Your task to perform on an android device: Open accessibility settings Image 0: 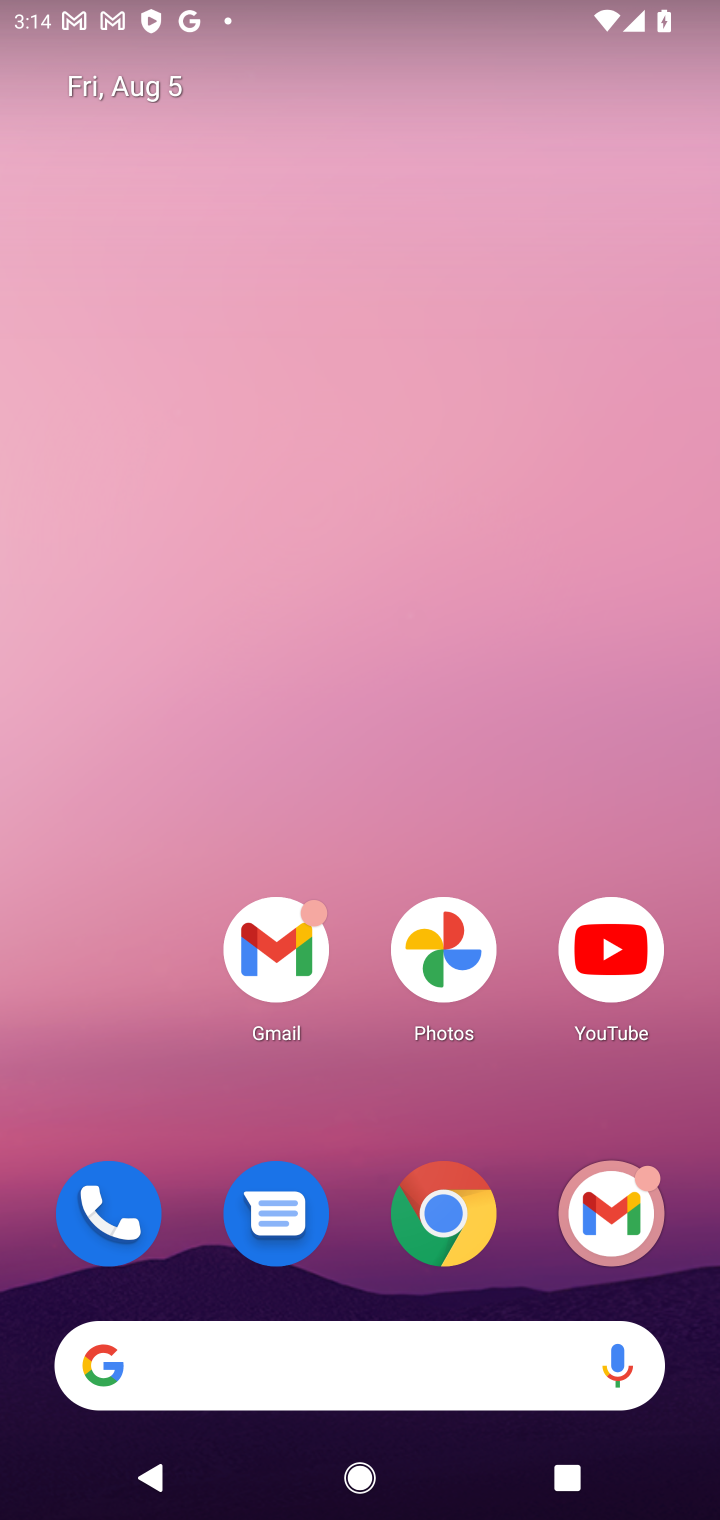
Step 0: drag from (540, 1277) to (423, 352)
Your task to perform on an android device: Open accessibility settings Image 1: 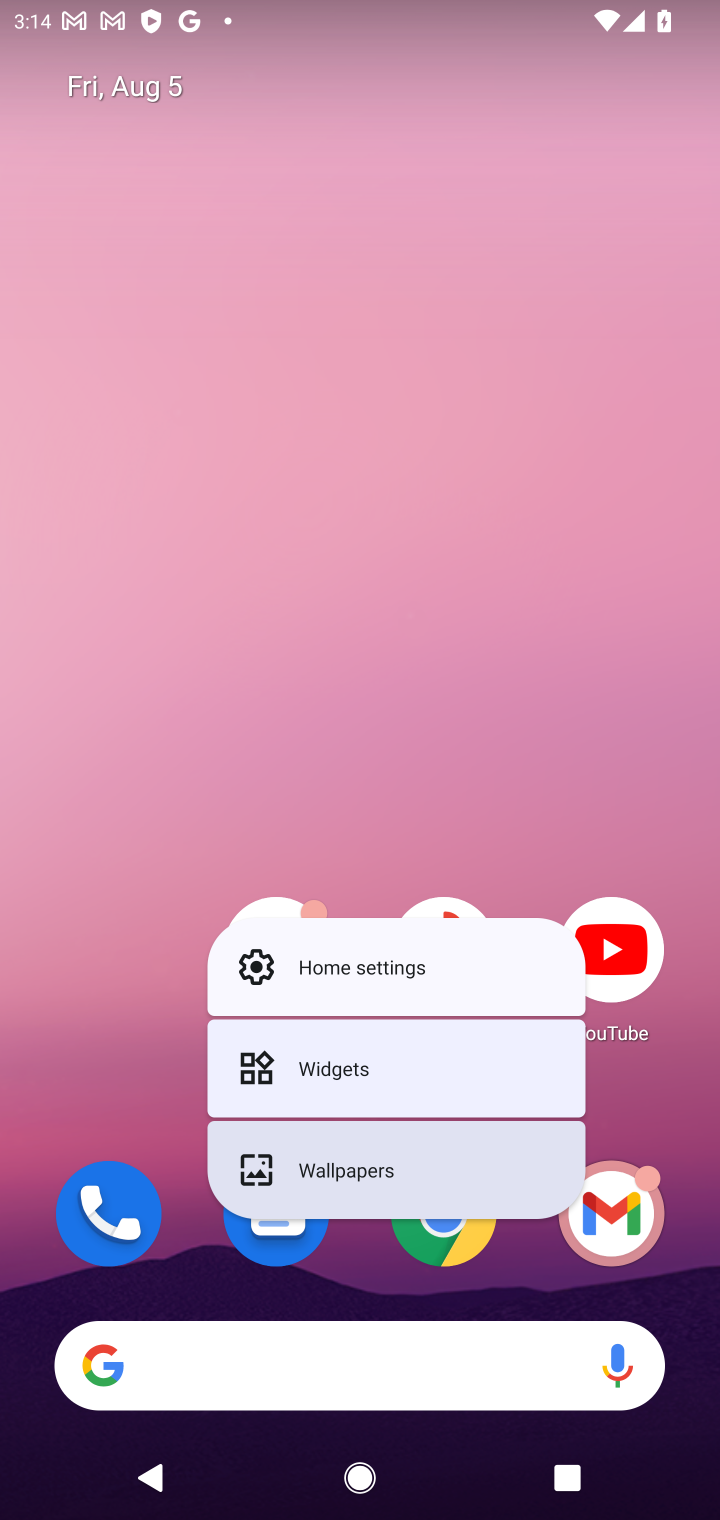
Step 1: click (423, 352)
Your task to perform on an android device: Open accessibility settings Image 2: 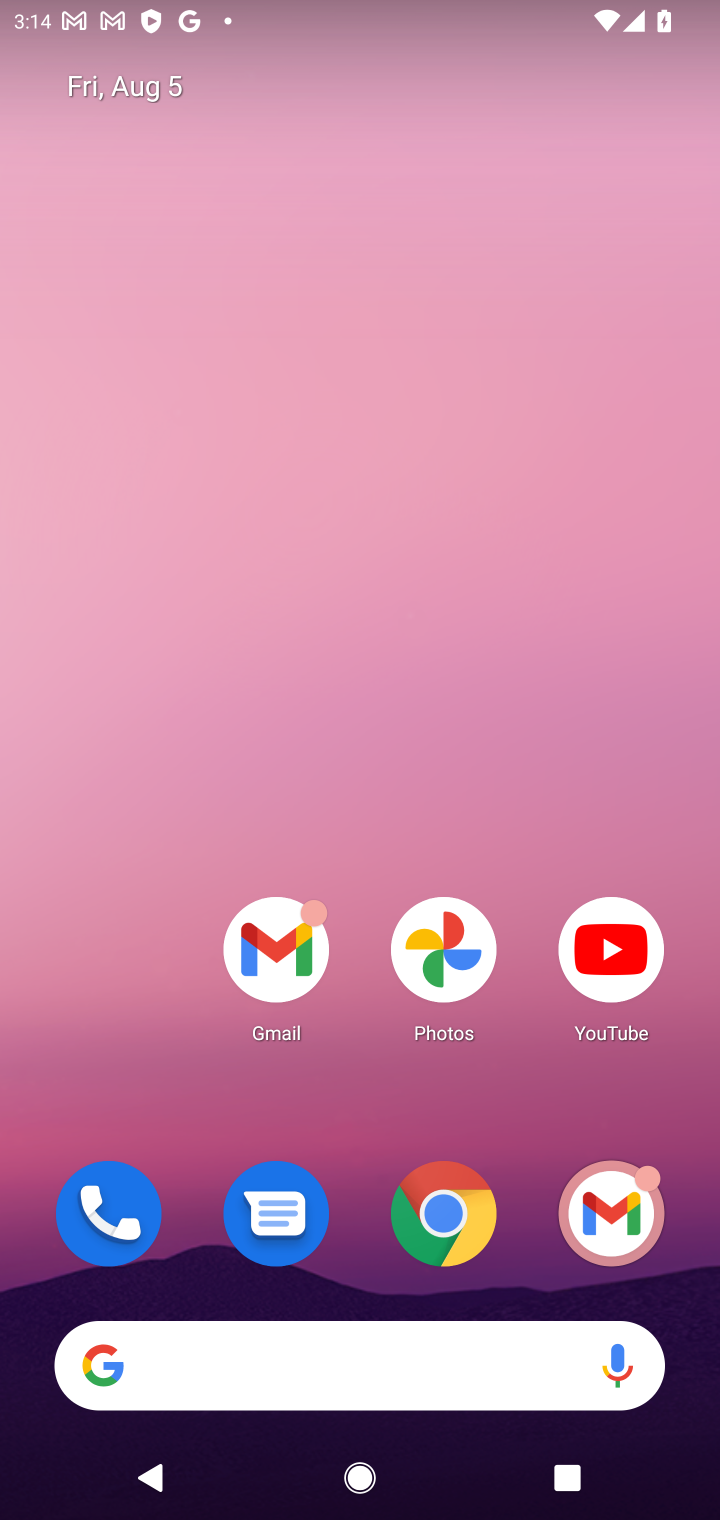
Step 2: drag from (520, 1277) to (449, 258)
Your task to perform on an android device: Open accessibility settings Image 3: 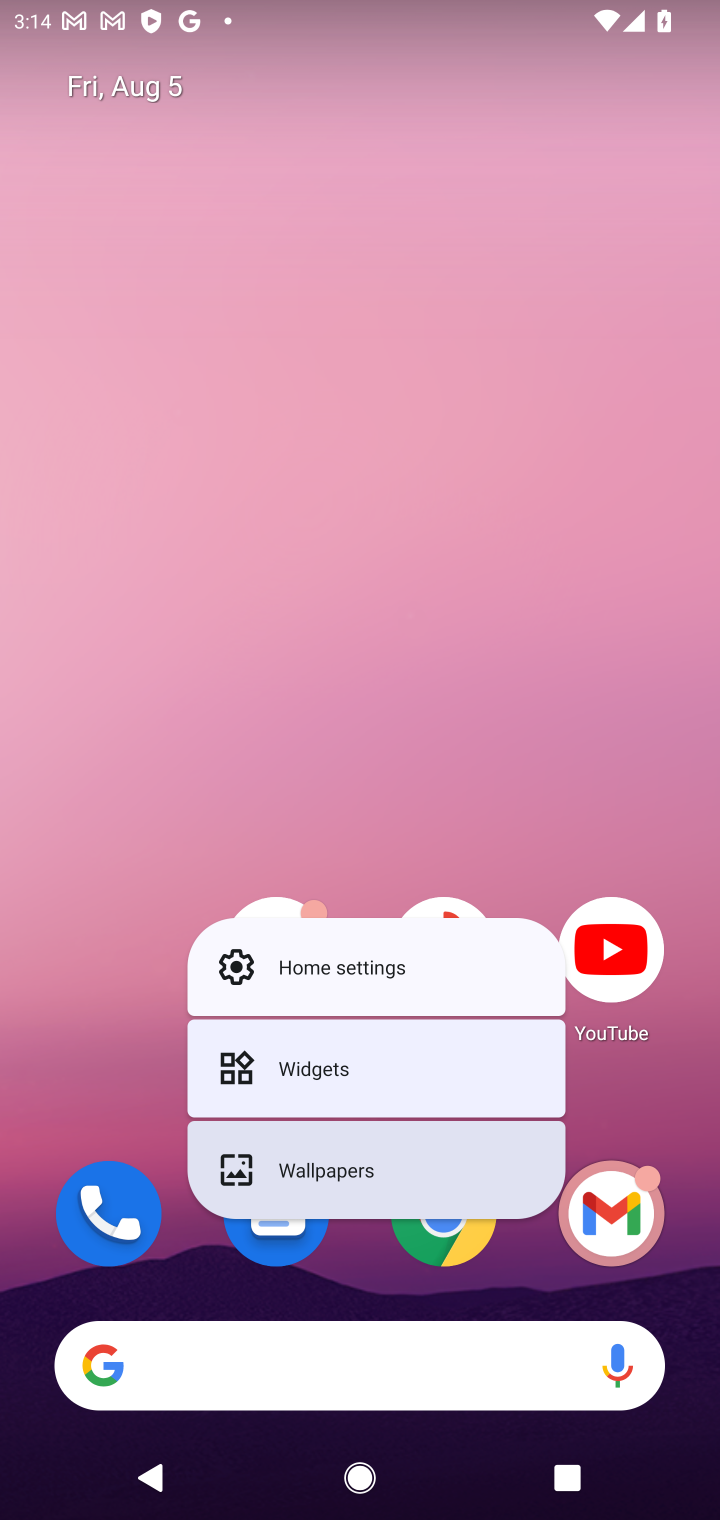
Step 3: click (449, 258)
Your task to perform on an android device: Open accessibility settings Image 4: 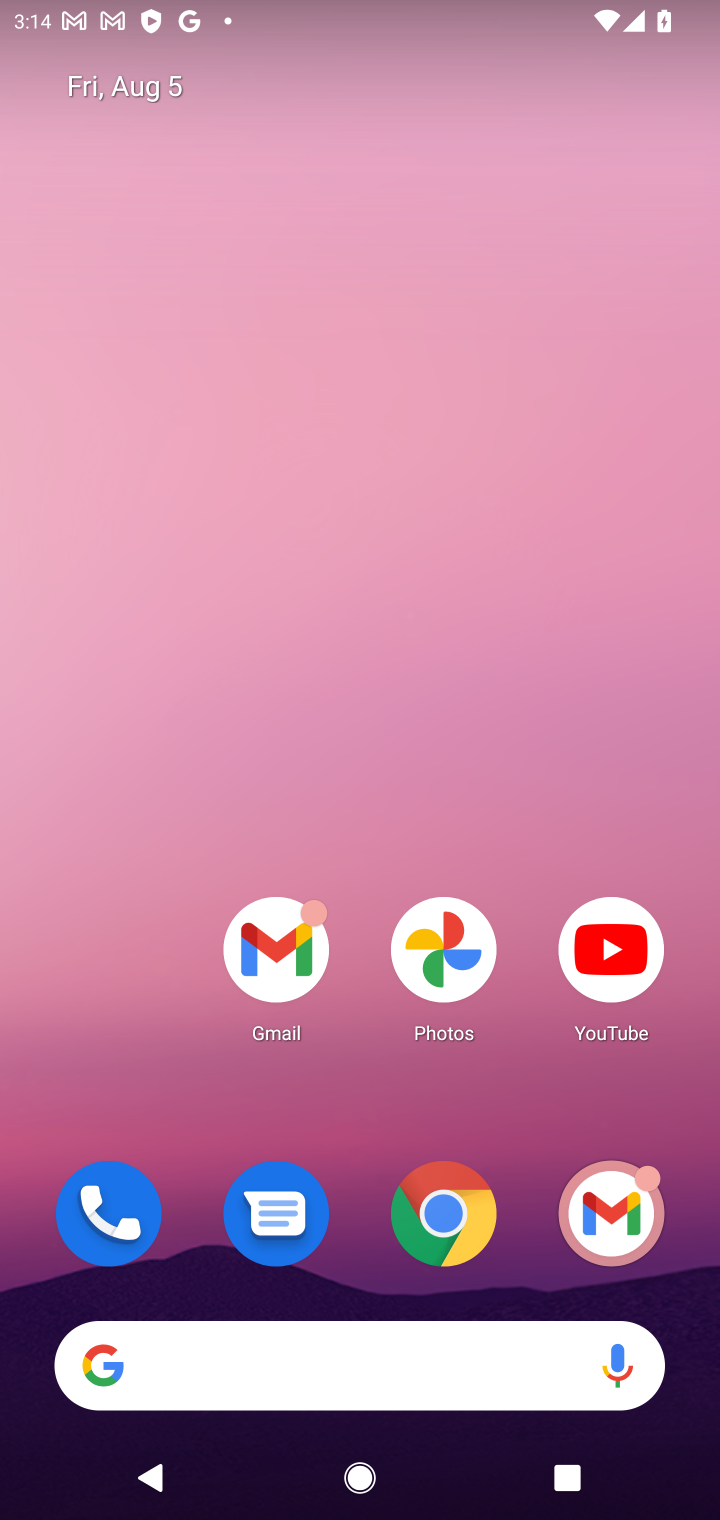
Step 4: drag from (352, 1299) to (349, 22)
Your task to perform on an android device: Open accessibility settings Image 5: 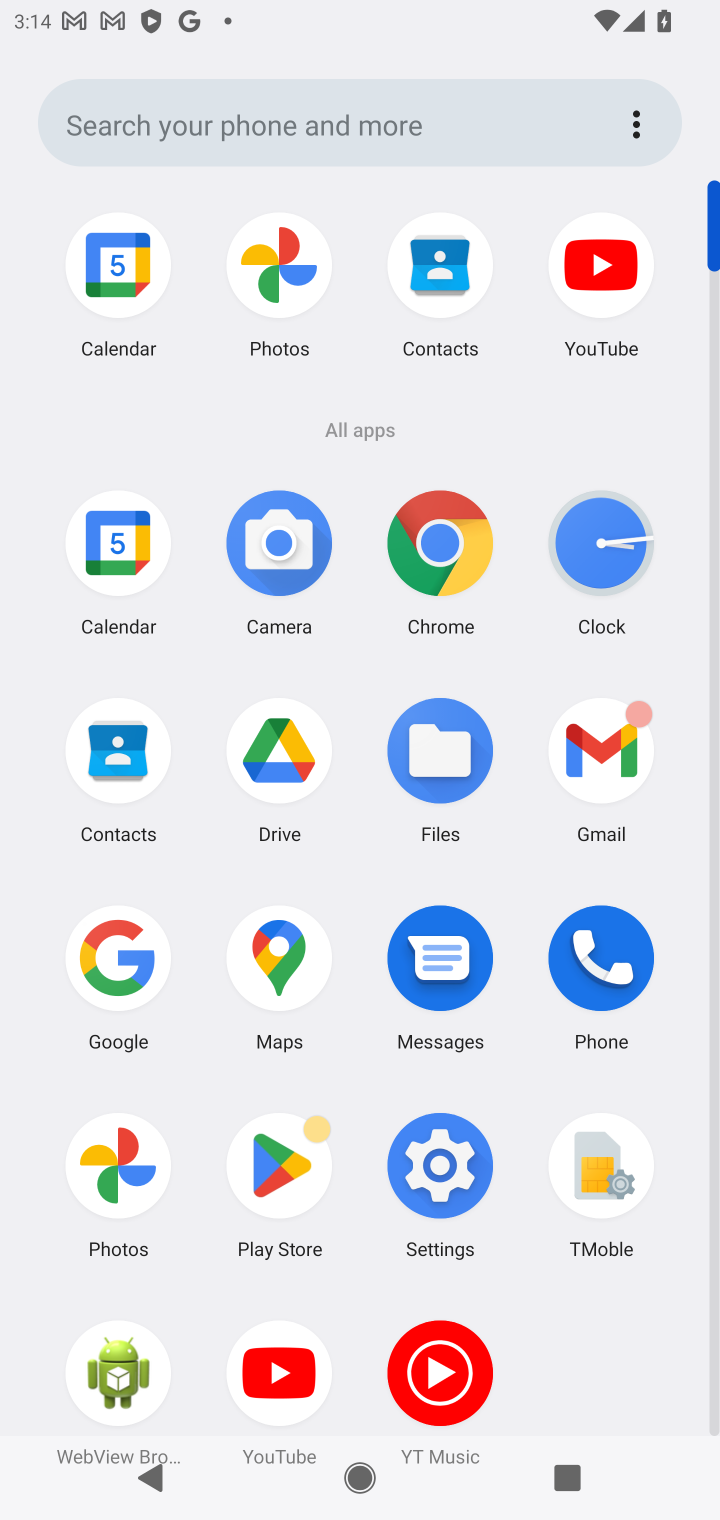
Step 5: click (455, 1189)
Your task to perform on an android device: Open accessibility settings Image 6: 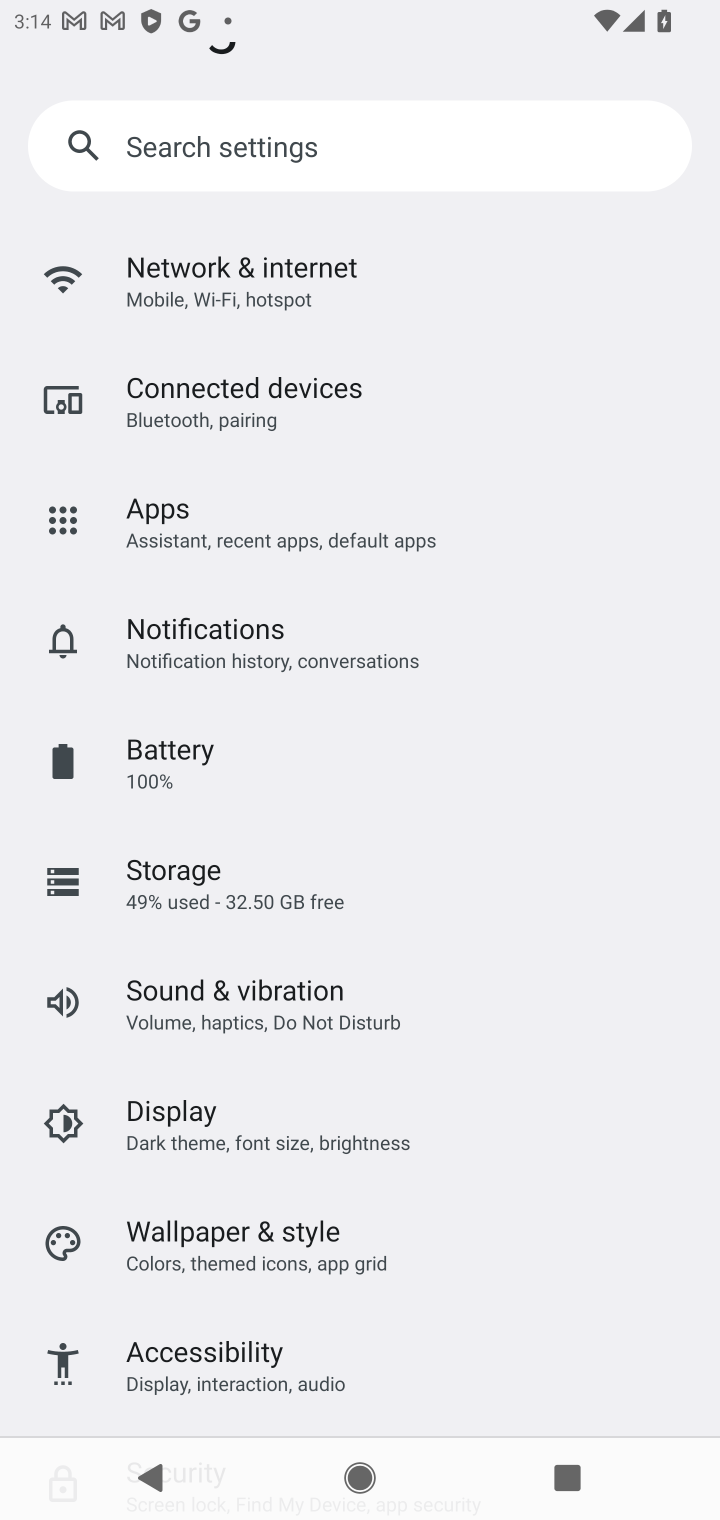
Step 6: click (257, 1368)
Your task to perform on an android device: Open accessibility settings Image 7: 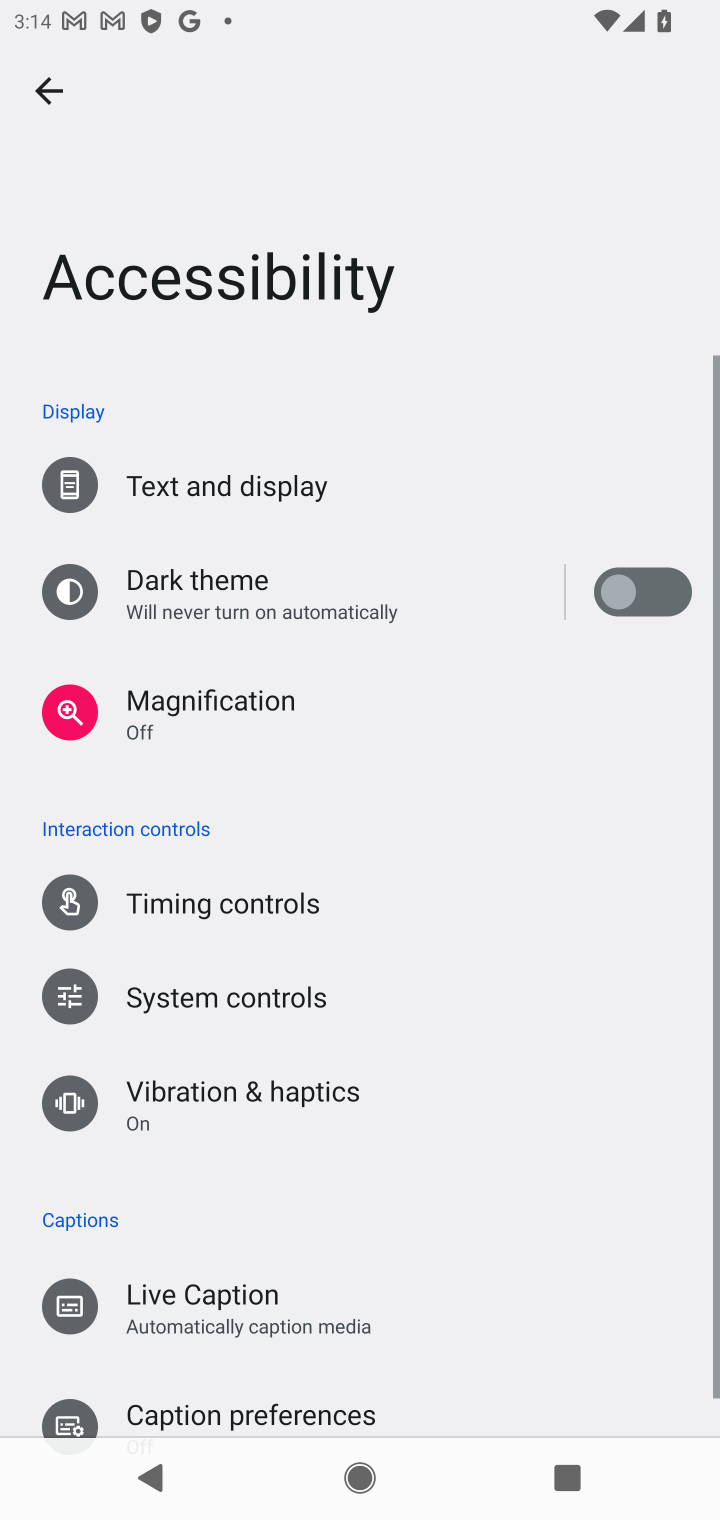
Step 7: task complete